Your task to perform on an android device: Open notification settings Image 0: 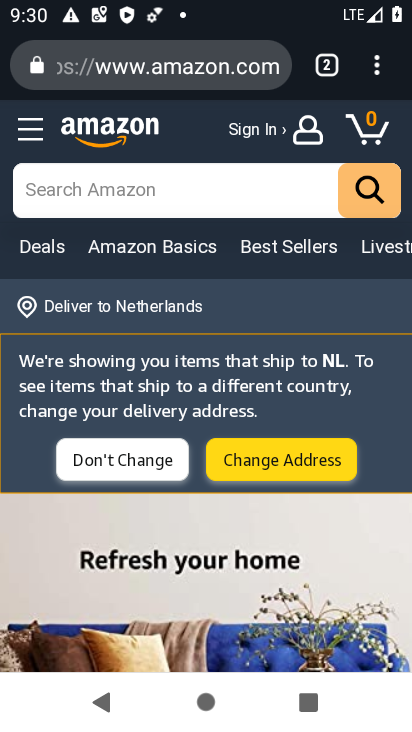
Step 0: click (194, 588)
Your task to perform on an android device: Open notification settings Image 1: 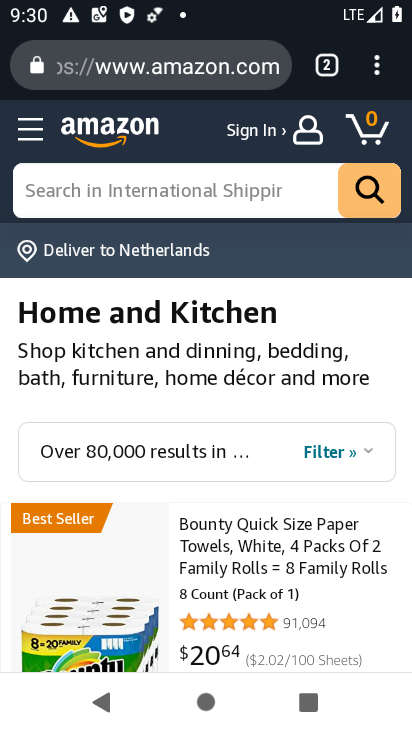
Step 1: press home button
Your task to perform on an android device: Open notification settings Image 2: 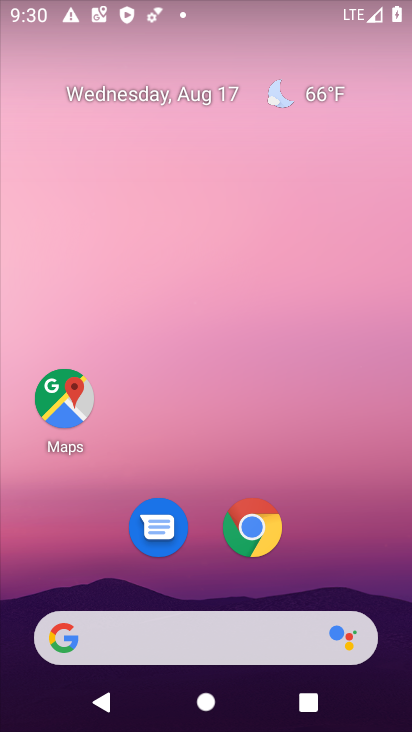
Step 2: drag from (186, 593) to (212, 74)
Your task to perform on an android device: Open notification settings Image 3: 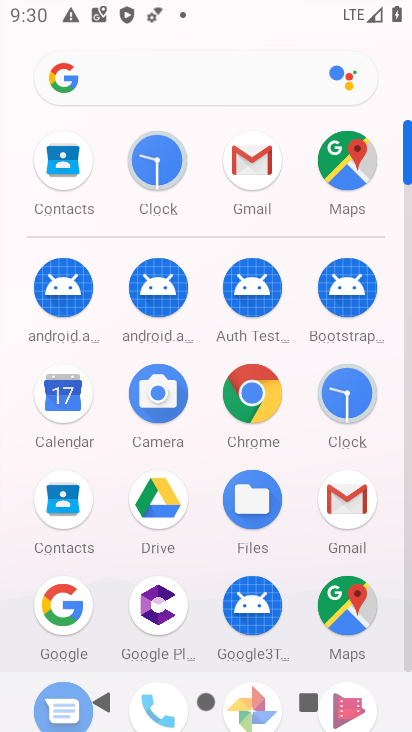
Step 3: drag from (200, 562) to (212, 243)
Your task to perform on an android device: Open notification settings Image 4: 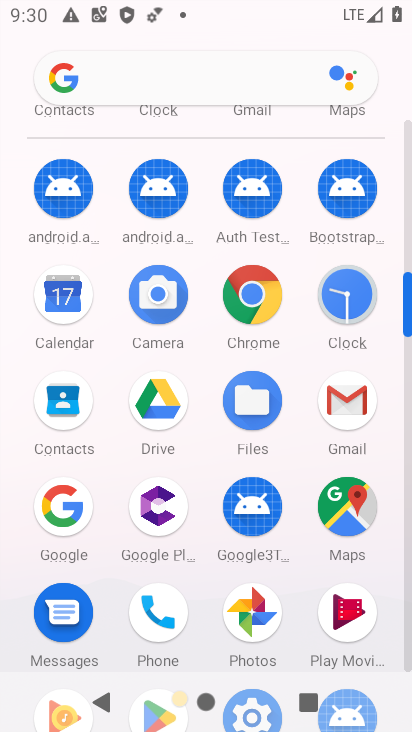
Step 4: drag from (207, 639) to (203, 387)
Your task to perform on an android device: Open notification settings Image 5: 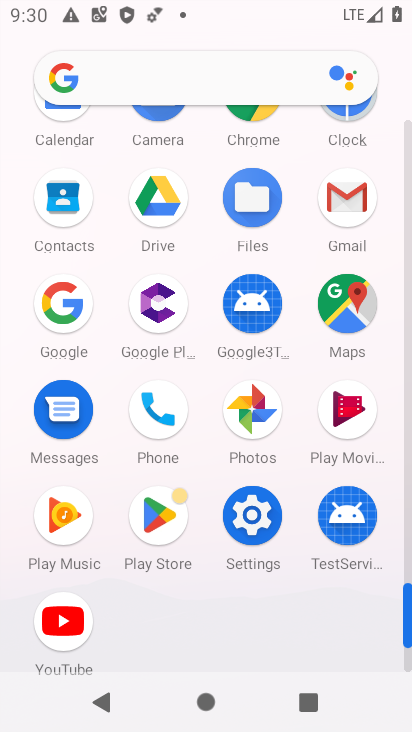
Step 5: click (234, 523)
Your task to perform on an android device: Open notification settings Image 6: 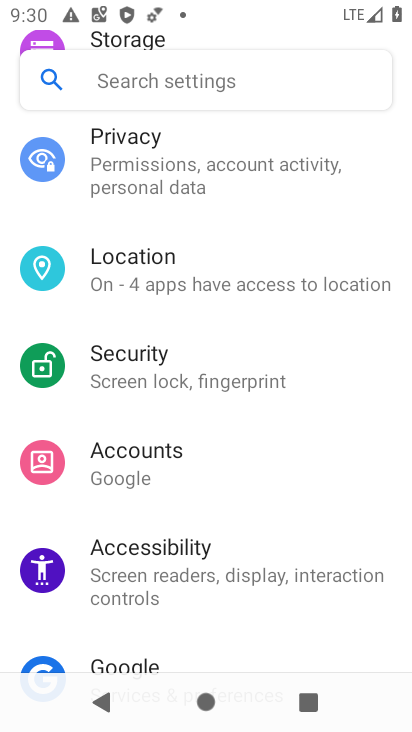
Step 6: drag from (297, 146) to (281, 648)
Your task to perform on an android device: Open notification settings Image 7: 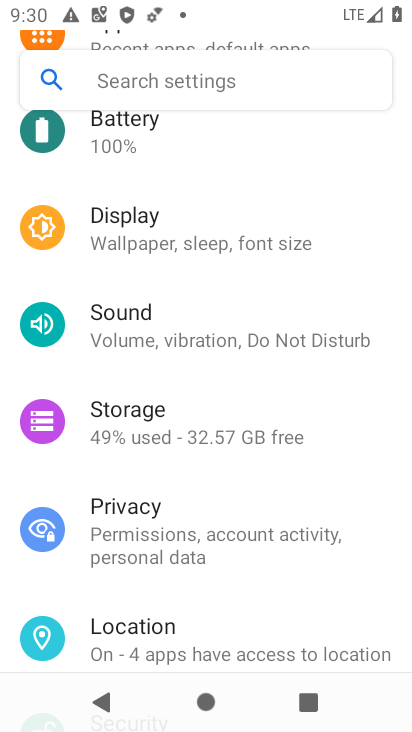
Step 7: drag from (219, 186) to (229, 628)
Your task to perform on an android device: Open notification settings Image 8: 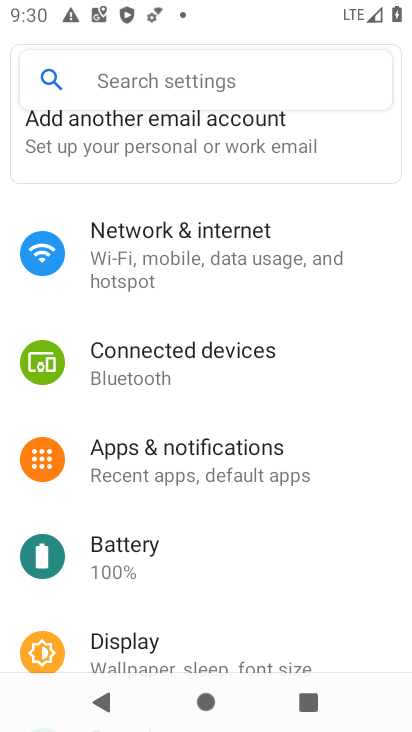
Step 8: click (220, 440)
Your task to perform on an android device: Open notification settings Image 9: 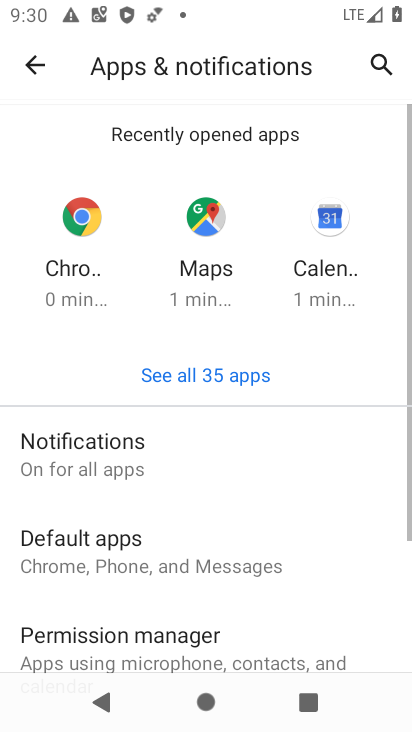
Step 9: task complete